Your task to perform on an android device: Clear all items from cart on costco. Add "logitech g903" to the cart on costco, then select checkout. Image 0: 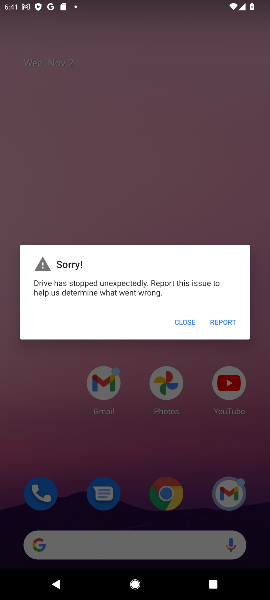
Step 0: click (184, 323)
Your task to perform on an android device: Clear all items from cart on costco. Add "logitech g903" to the cart on costco, then select checkout. Image 1: 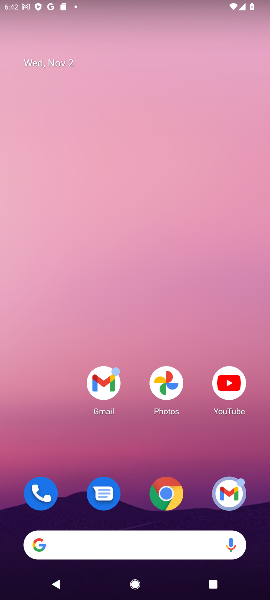
Step 1: drag from (134, 542) to (116, 251)
Your task to perform on an android device: Clear all items from cart on costco. Add "logitech g903" to the cart on costco, then select checkout. Image 2: 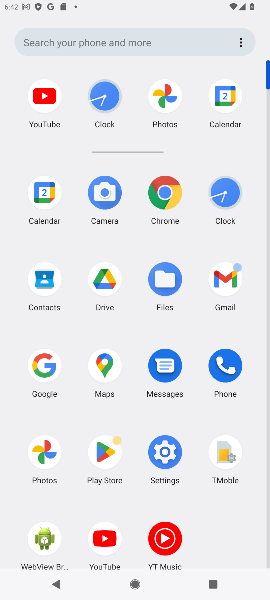
Step 2: click (41, 358)
Your task to perform on an android device: Clear all items from cart on costco. Add "logitech g903" to the cart on costco, then select checkout. Image 3: 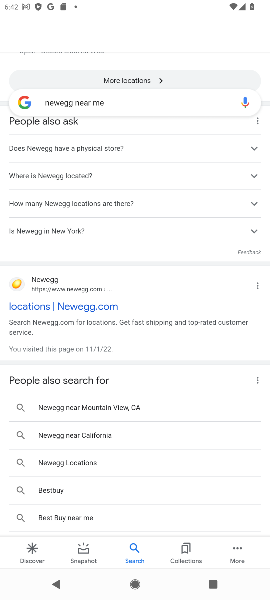
Step 3: click (86, 94)
Your task to perform on an android device: Clear all items from cart on costco. Add "logitech g903" to the cart on costco, then select checkout. Image 4: 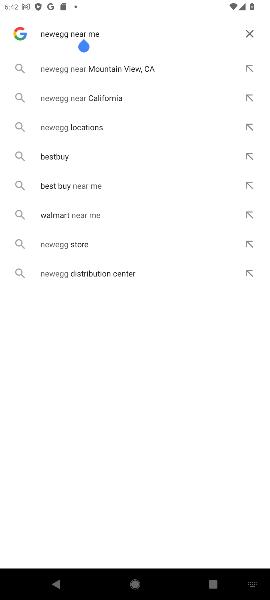
Step 4: click (253, 31)
Your task to perform on an android device: Clear all items from cart on costco. Add "logitech g903" to the cart on costco, then select checkout. Image 5: 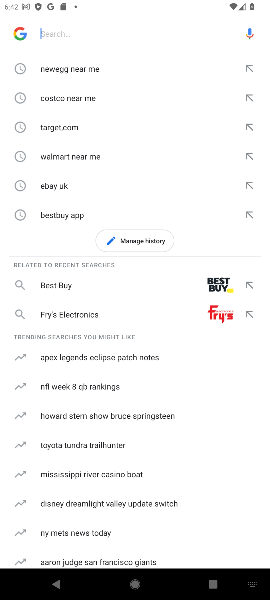
Step 5: click (110, 20)
Your task to perform on an android device: Clear all items from cart on costco. Add "logitech g903" to the cart on costco, then select checkout. Image 6: 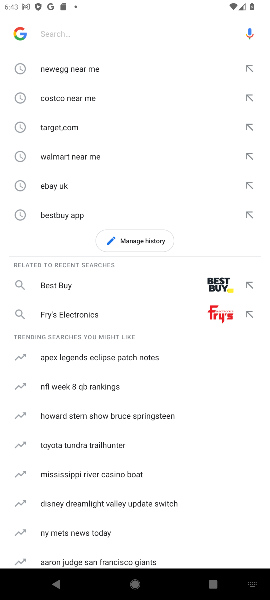
Step 6: type "costco "
Your task to perform on an android device: Clear all items from cart on costco. Add "logitech g903" to the cart on costco, then select checkout. Image 7: 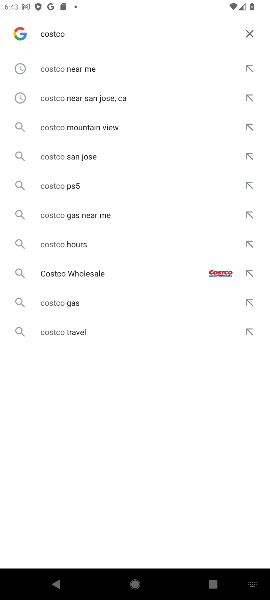
Step 7: click (70, 71)
Your task to perform on an android device: Clear all items from cart on costco. Add "logitech g903" to the cart on costco, then select checkout. Image 8: 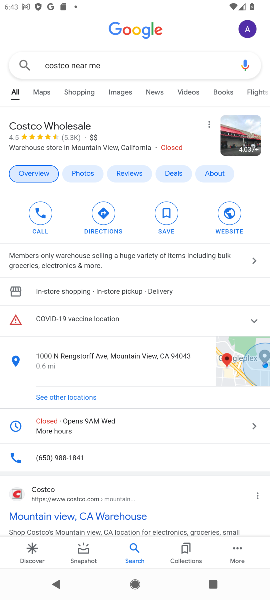
Step 8: drag from (71, 462) to (71, 386)
Your task to perform on an android device: Clear all items from cart on costco. Add "logitech g903" to the cart on costco, then select checkout. Image 9: 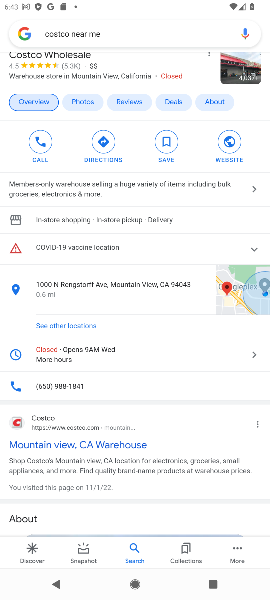
Step 9: click (18, 419)
Your task to perform on an android device: Clear all items from cart on costco. Add "logitech g903" to the cart on costco, then select checkout. Image 10: 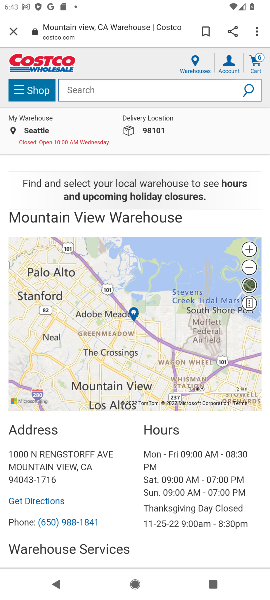
Step 10: click (108, 87)
Your task to perform on an android device: Clear all items from cart on costco. Add "logitech g903" to the cart on costco, then select checkout. Image 11: 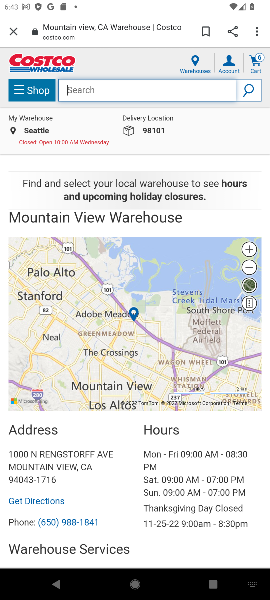
Step 11: click (115, 78)
Your task to perform on an android device: Clear all items from cart on costco. Add "logitech g903" to the cart on costco, then select checkout. Image 12: 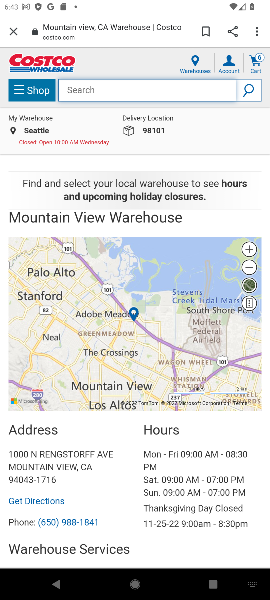
Step 12: click (151, 87)
Your task to perform on an android device: Clear all items from cart on costco. Add "logitech g903" to the cart on costco, then select checkout. Image 13: 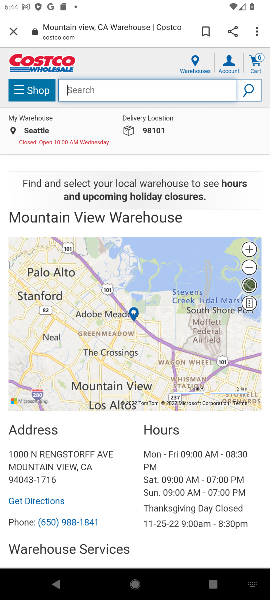
Step 13: type "logitech g903 "
Your task to perform on an android device: Clear all items from cart on costco. Add "logitech g903" to the cart on costco, then select checkout. Image 14: 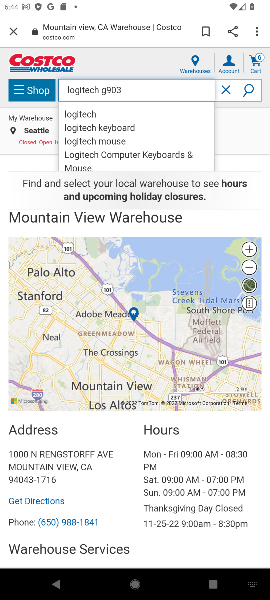
Step 14: click (85, 110)
Your task to perform on an android device: Clear all items from cart on costco. Add "logitech g903" to the cart on costco, then select checkout. Image 15: 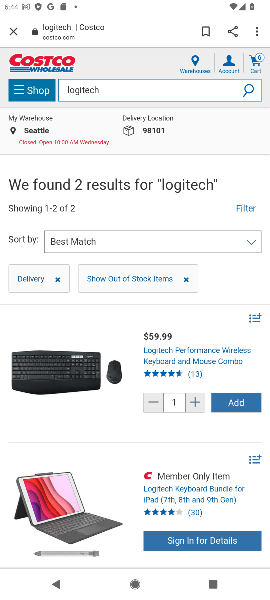
Step 15: drag from (147, 516) to (148, 339)
Your task to perform on an android device: Clear all items from cart on costco. Add "logitech g903" to the cart on costco, then select checkout. Image 16: 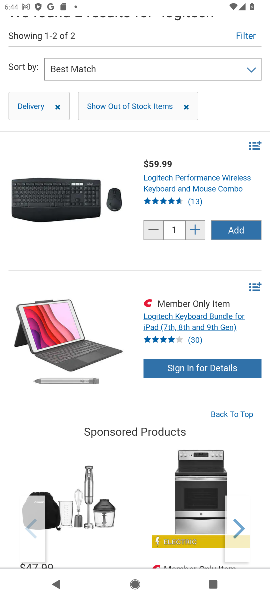
Step 16: drag from (124, 228) to (149, 432)
Your task to perform on an android device: Clear all items from cart on costco. Add "logitech g903" to the cart on costco, then select checkout. Image 17: 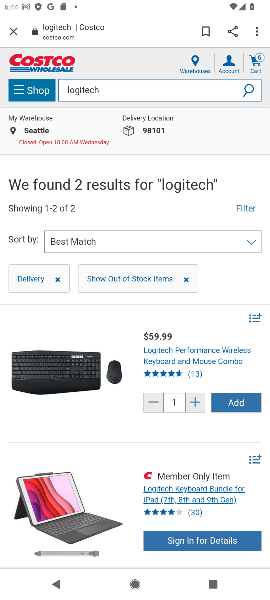
Step 17: click (238, 405)
Your task to perform on an android device: Clear all items from cart on costco. Add "logitech g903" to the cart on costco, then select checkout. Image 18: 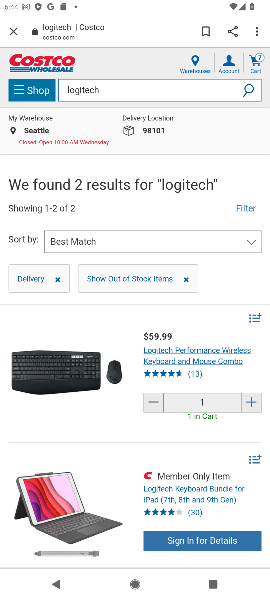
Step 18: task complete